Your task to perform on an android device: Go to settings Image 0: 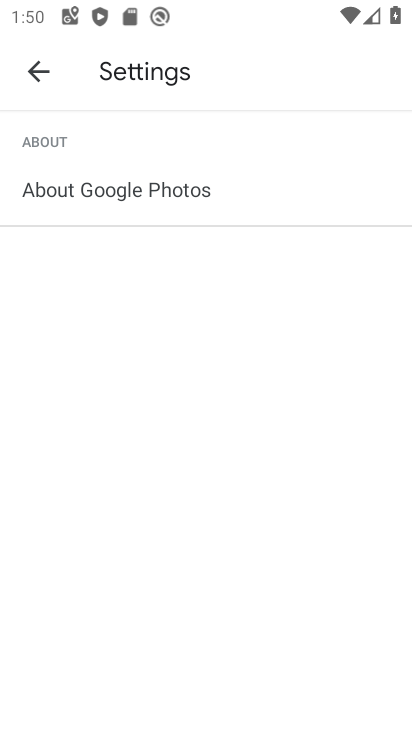
Step 0: press home button
Your task to perform on an android device: Go to settings Image 1: 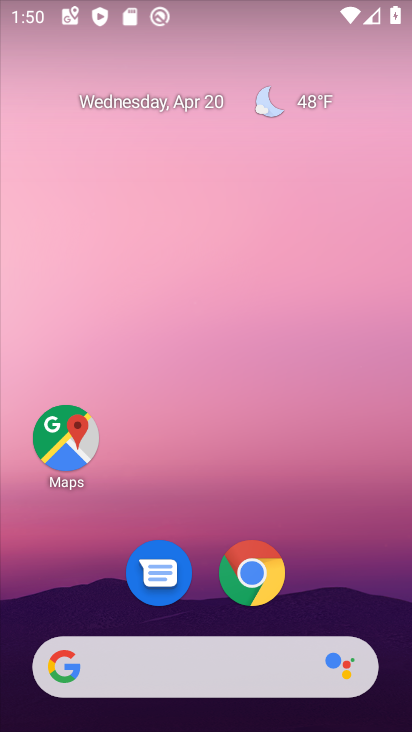
Step 1: drag from (161, 656) to (333, 60)
Your task to perform on an android device: Go to settings Image 2: 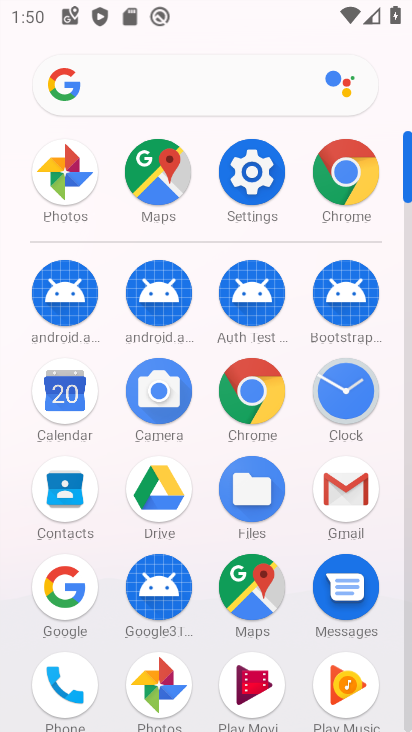
Step 2: click (255, 177)
Your task to perform on an android device: Go to settings Image 3: 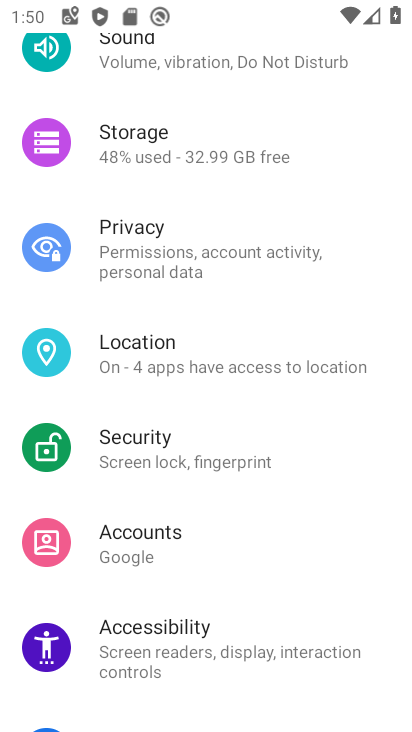
Step 3: task complete